Your task to perform on an android device: open app "Life360: Find Family & Friends" (install if not already installed), go to login, and select forgot password Image 0: 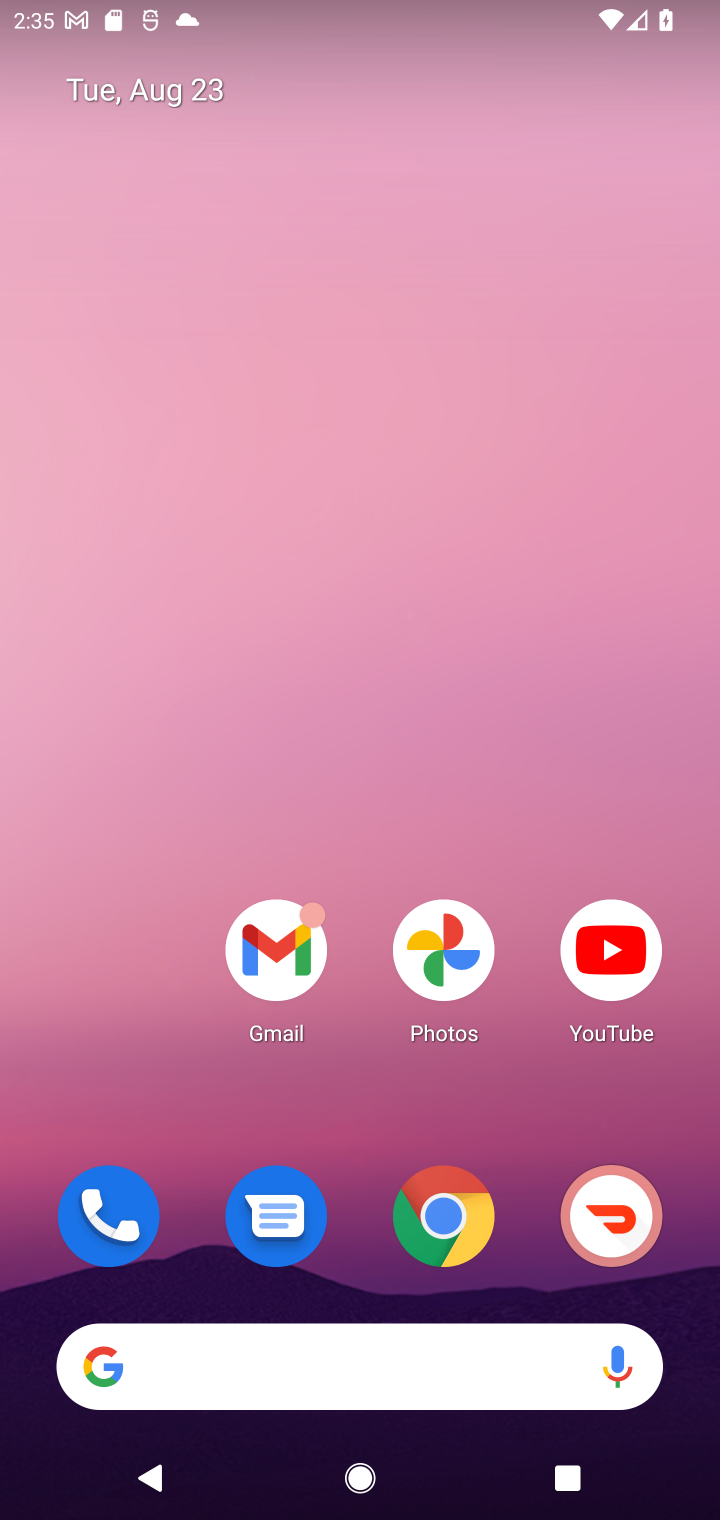
Step 0: drag from (353, 1110) to (389, 92)
Your task to perform on an android device: open app "Life360: Find Family & Friends" (install if not already installed), go to login, and select forgot password Image 1: 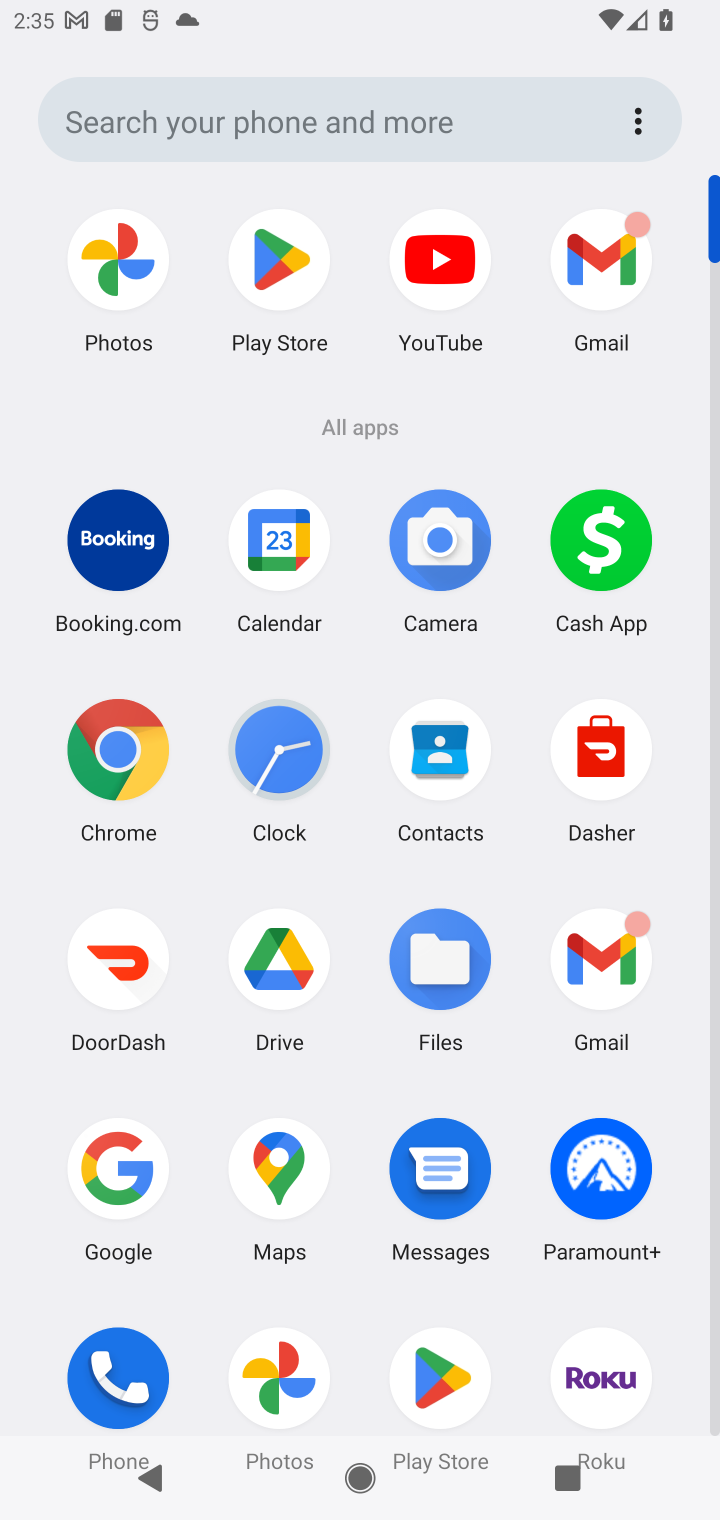
Step 1: click (273, 237)
Your task to perform on an android device: open app "Life360: Find Family & Friends" (install if not already installed), go to login, and select forgot password Image 2: 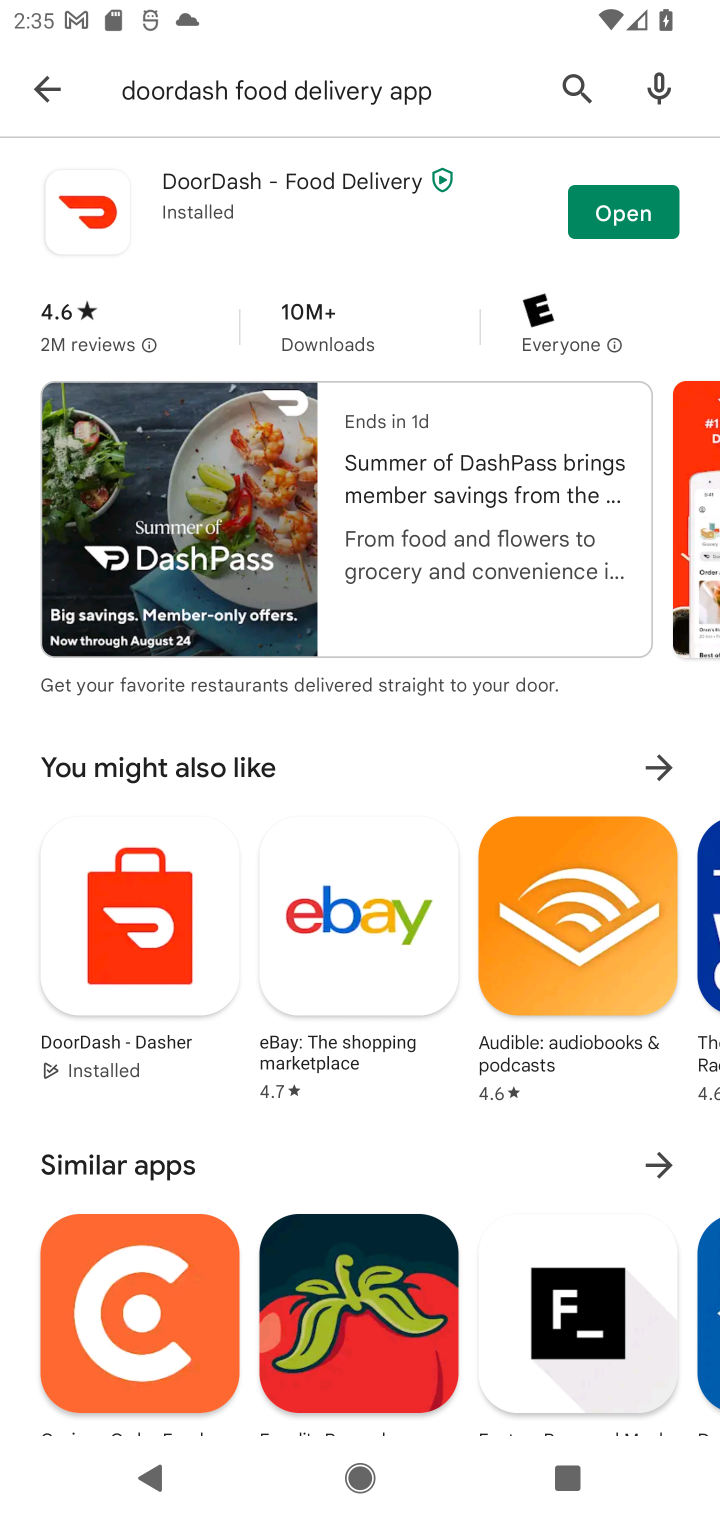
Step 2: click (45, 79)
Your task to perform on an android device: open app "Life360: Find Family & Friends" (install if not already installed), go to login, and select forgot password Image 3: 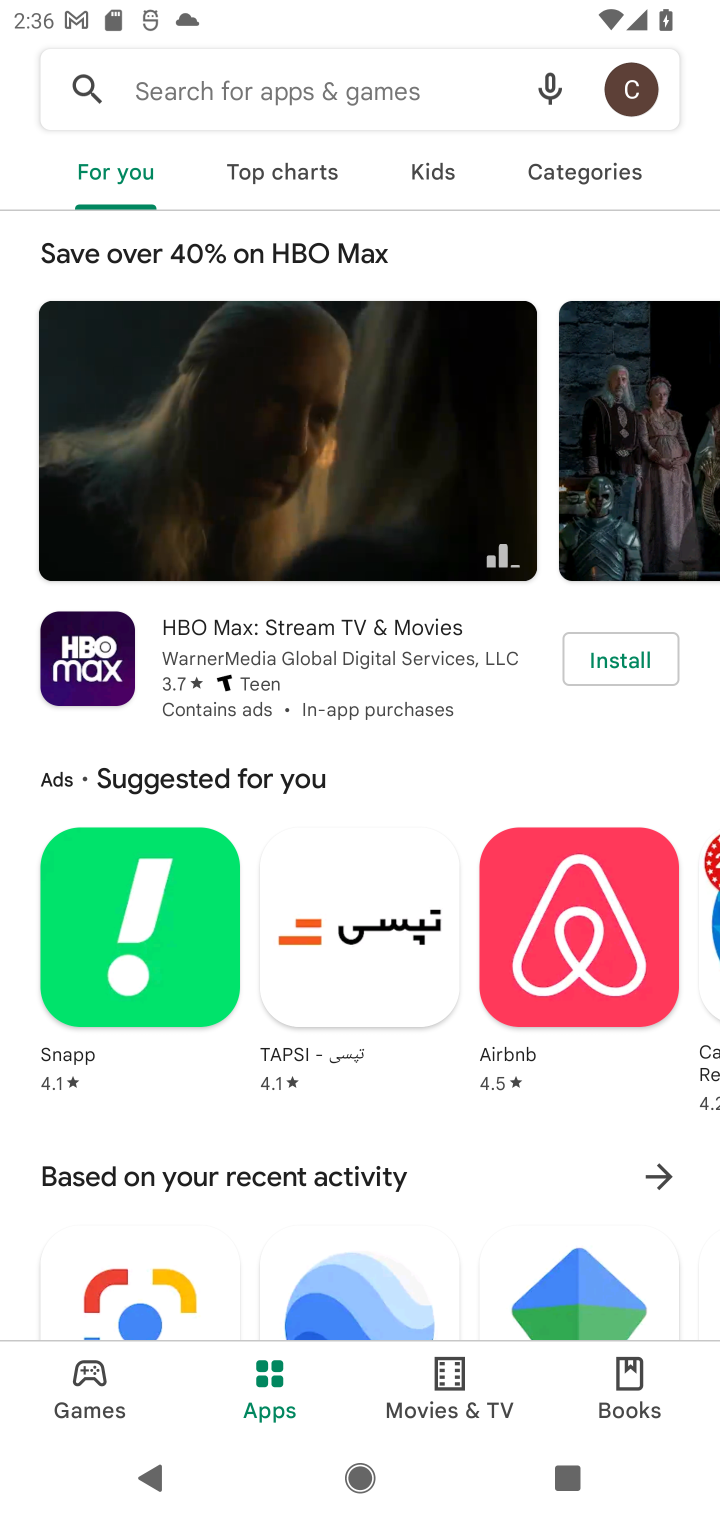
Step 3: click (362, 68)
Your task to perform on an android device: open app "Life360: Find Family & Friends" (install if not already installed), go to login, and select forgot password Image 4: 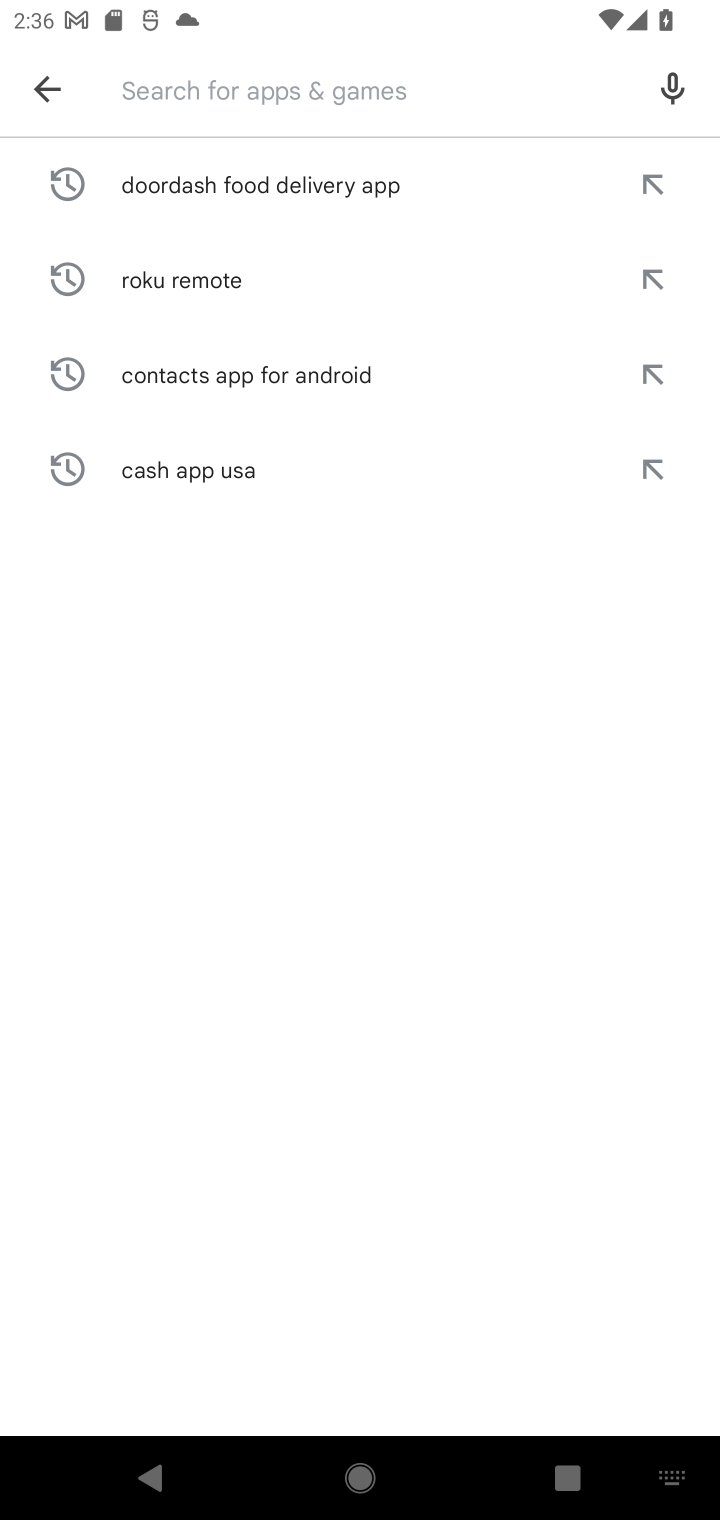
Step 4: type "Life360: Find Family & Friends "
Your task to perform on an android device: open app "Life360: Find Family & Friends" (install if not already installed), go to login, and select forgot password Image 5: 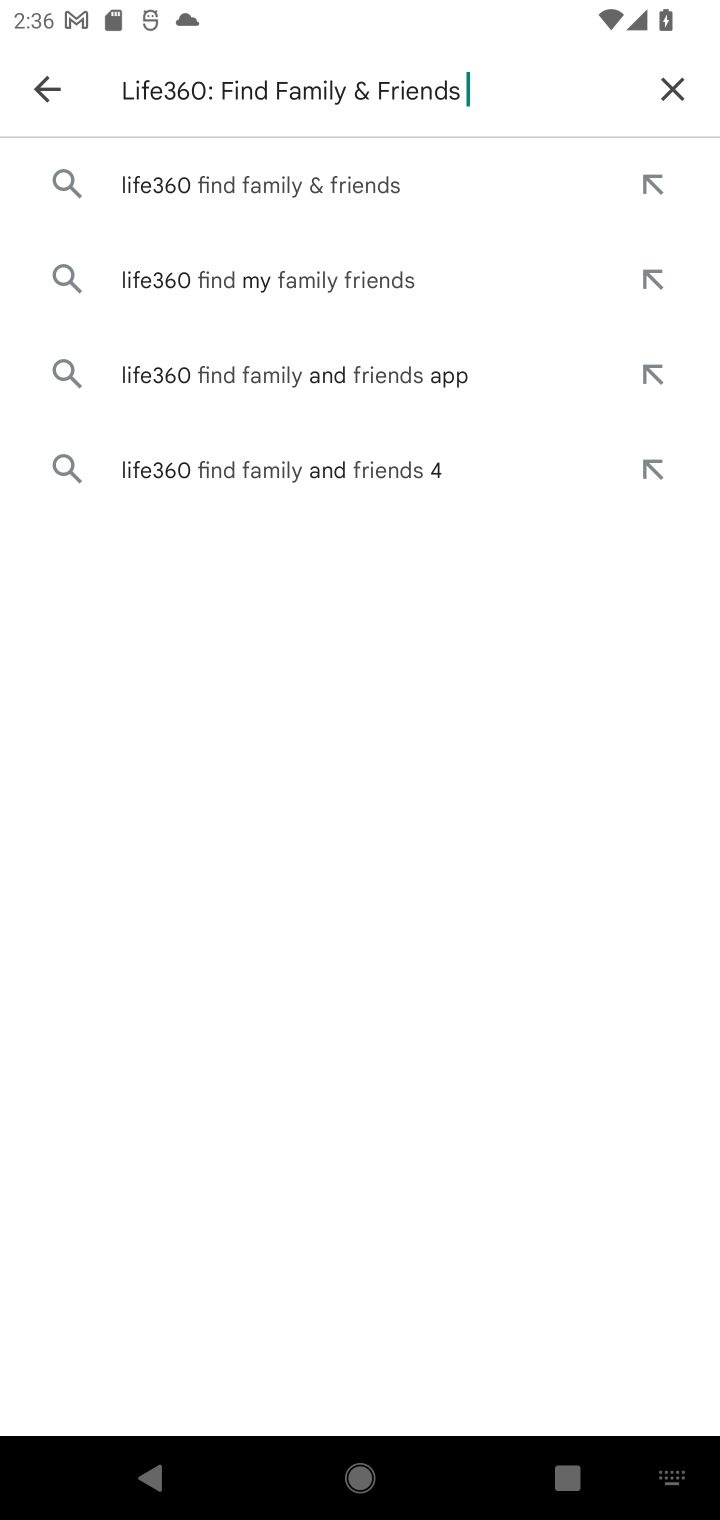
Step 5: click (268, 174)
Your task to perform on an android device: open app "Life360: Find Family & Friends" (install if not already installed), go to login, and select forgot password Image 6: 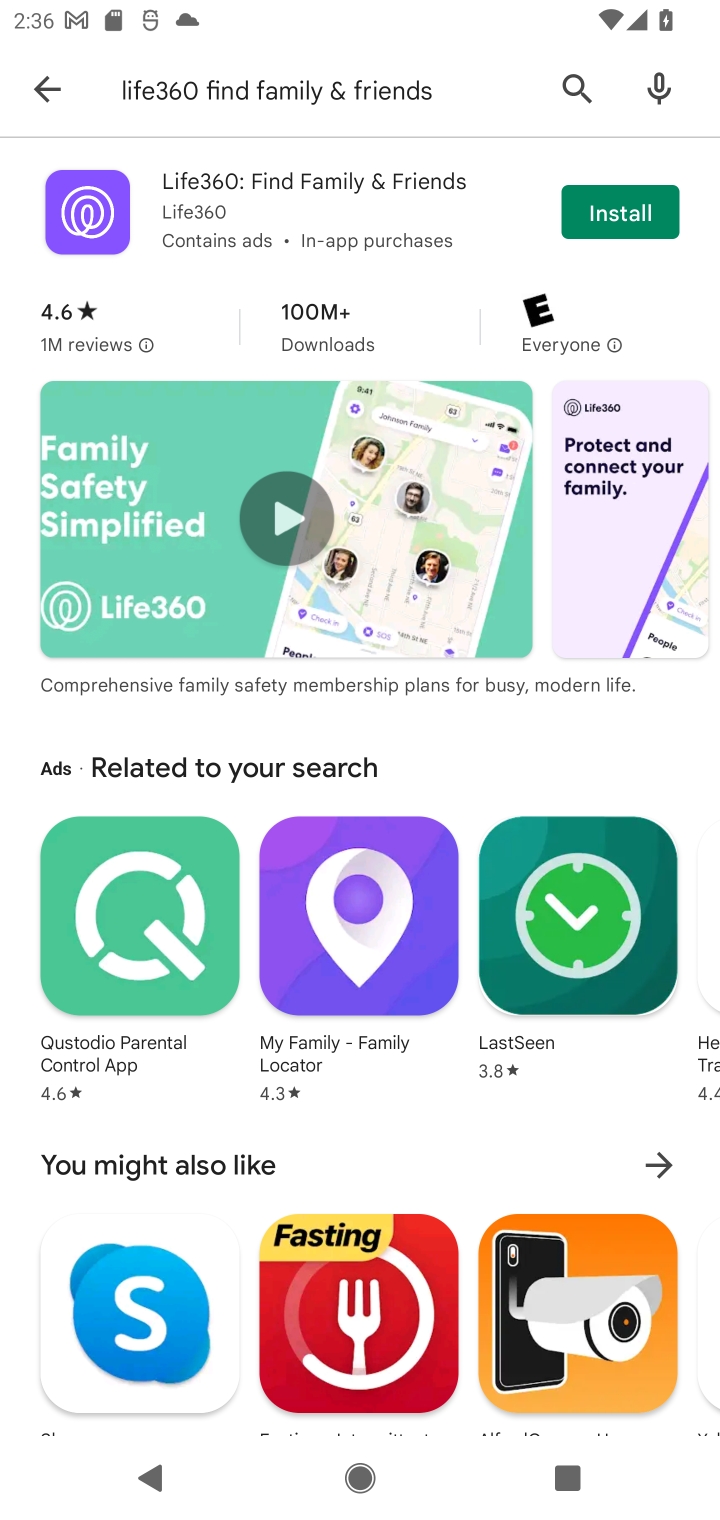
Step 6: click (576, 201)
Your task to perform on an android device: open app "Life360: Find Family & Friends" (install if not already installed), go to login, and select forgot password Image 7: 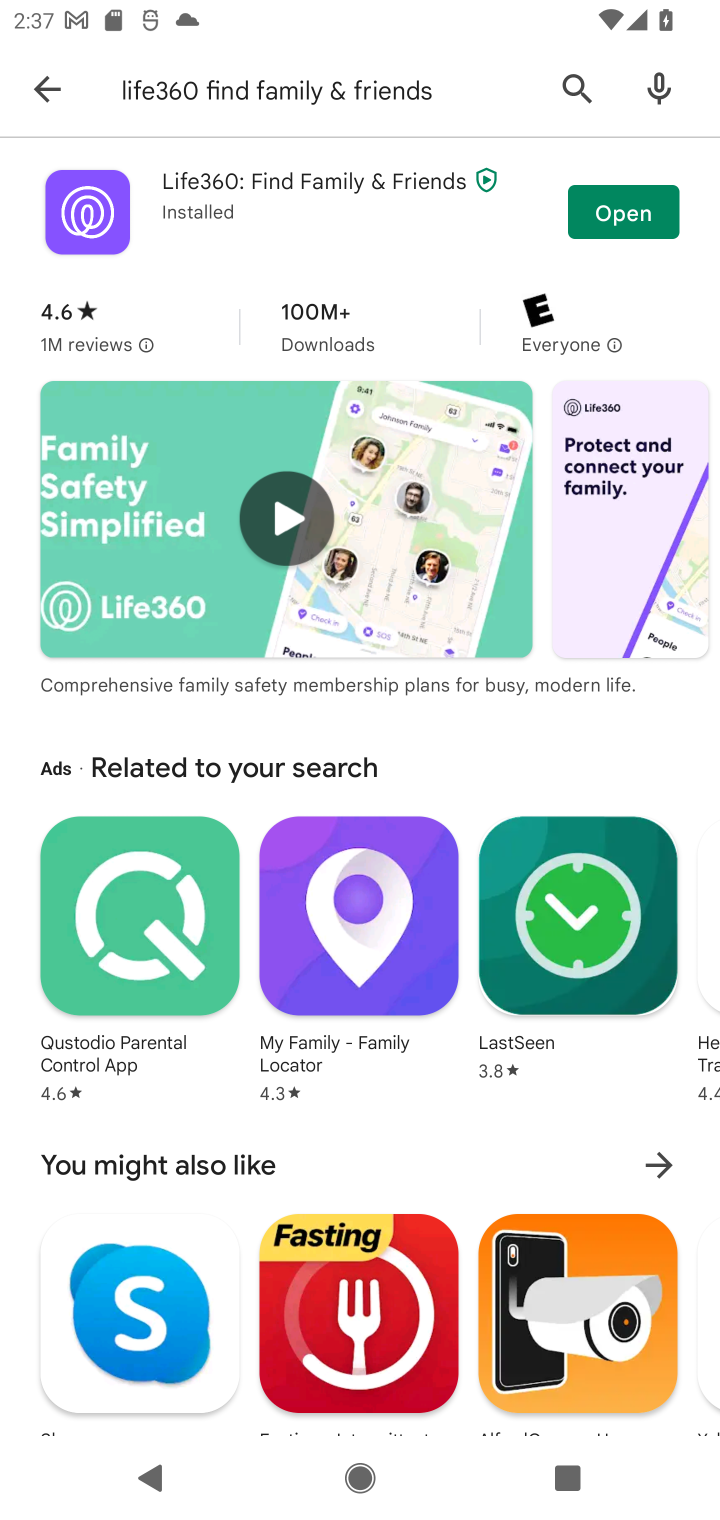
Step 7: click (595, 210)
Your task to perform on an android device: open app "Life360: Find Family & Friends" (install if not already installed), go to login, and select forgot password Image 8: 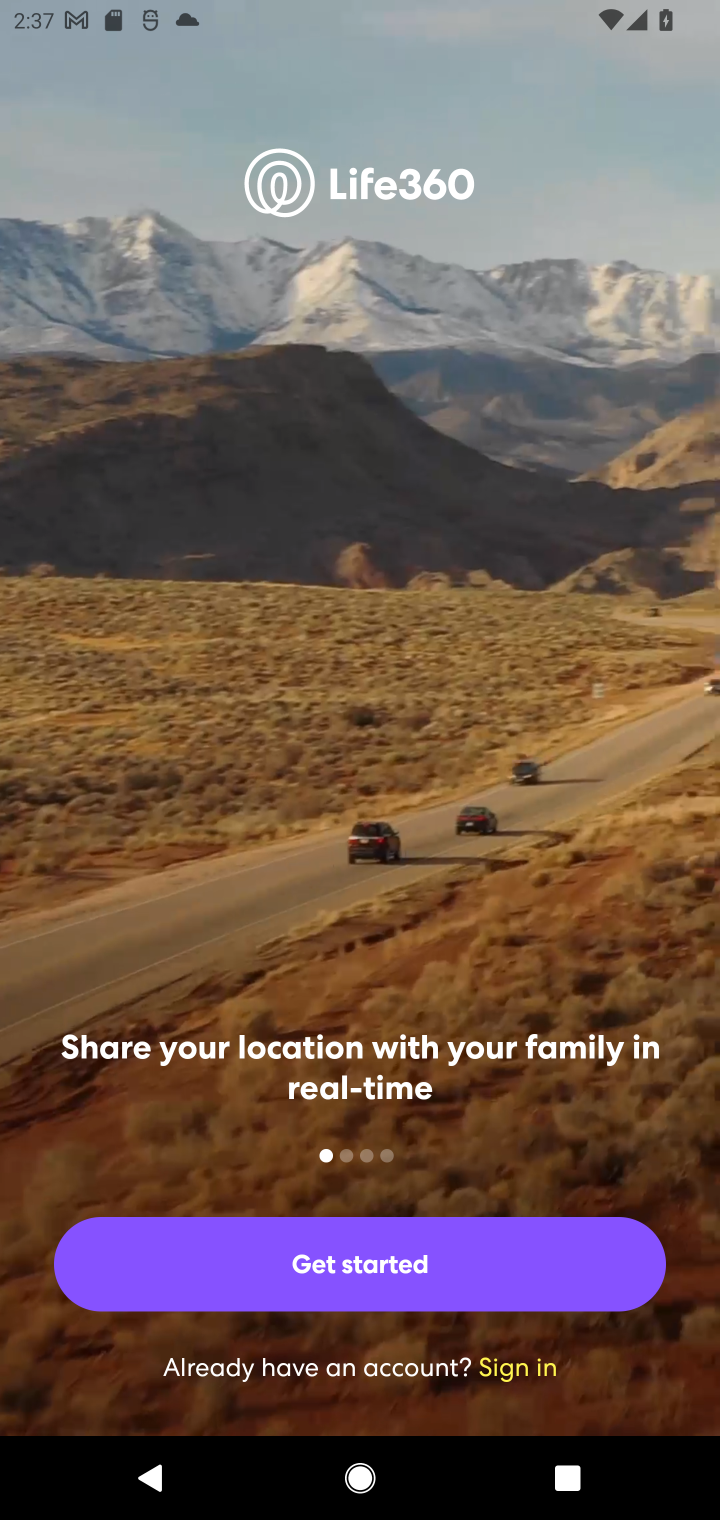
Step 8: task complete